Your task to perform on an android device: Search for vegetarian restaurants on Maps Image 0: 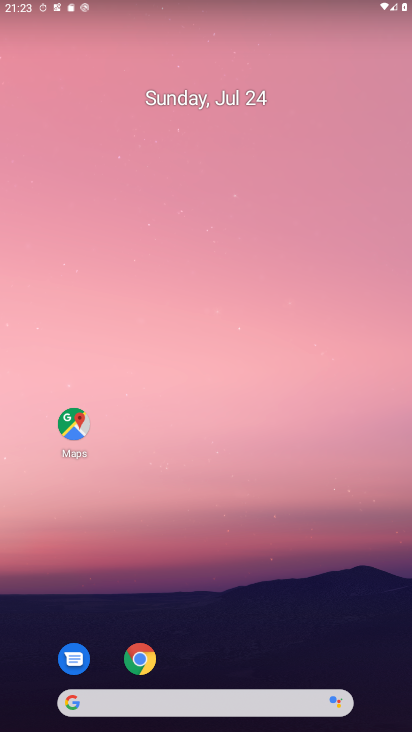
Step 0: drag from (215, 712) to (215, 83)
Your task to perform on an android device: Search for vegetarian restaurants on Maps Image 1: 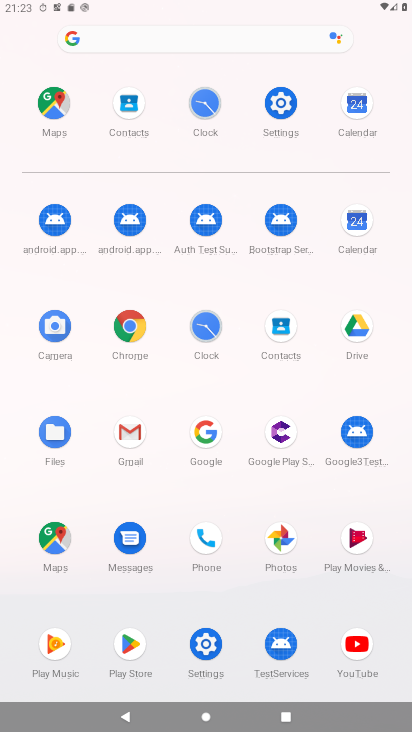
Step 1: click (55, 539)
Your task to perform on an android device: Search for vegetarian restaurants on Maps Image 2: 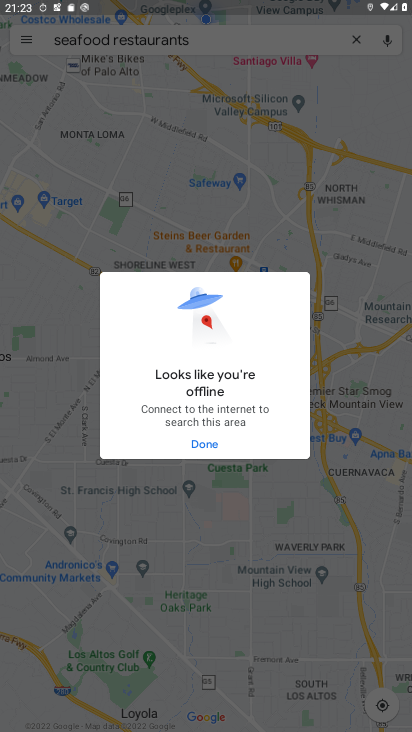
Step 2: click (202, 442)
Your task to perform on an android device: Search for vegetarian restaurants on Maps Image 3: 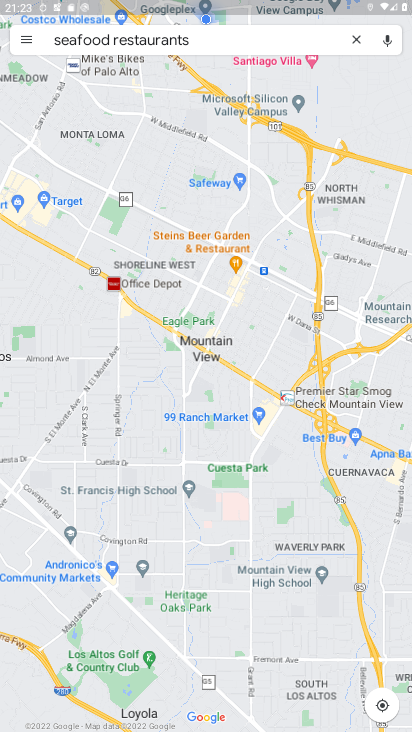
Step 3: click (353, 34)
Your task to perform on an android device: Search for vegetarian restaurants on Maps Image 4: 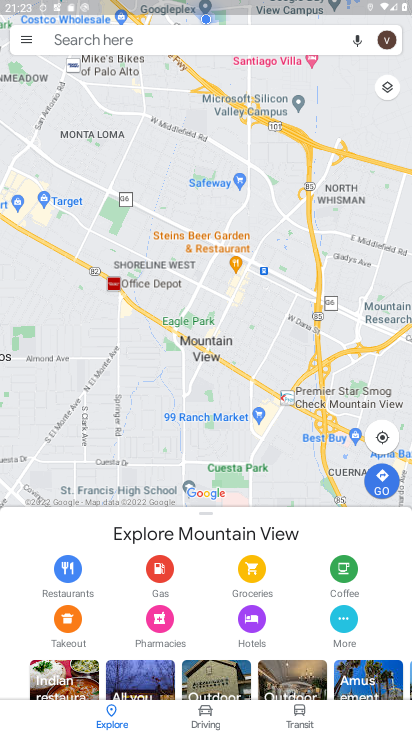
Step 4: click (214, 42)
Your task to perform on an android device: Search for vegetarian restaurants on Maps Image 5: 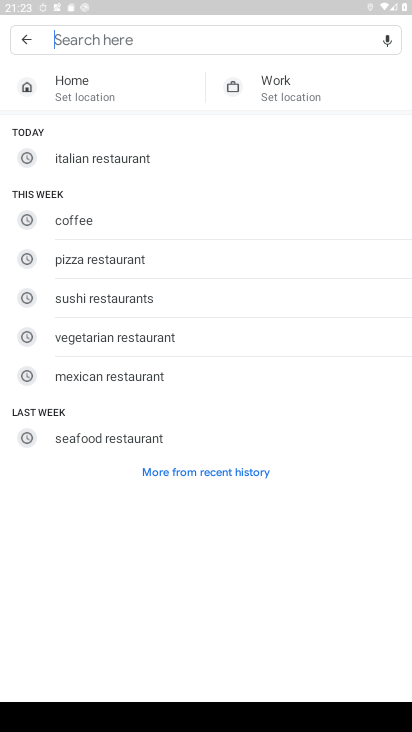
Step 5: type "vegettarian restaurants"
Your task to perform on an android device: Search for vegetarian restaurants on Maps Image 6: 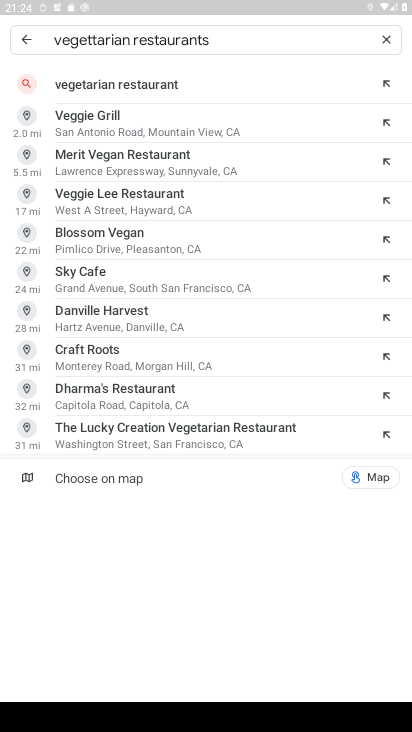
Step 6: click (139, 82)
Your task to perform on an android device: Search for vegetarian restaurants on Maps Image 7: 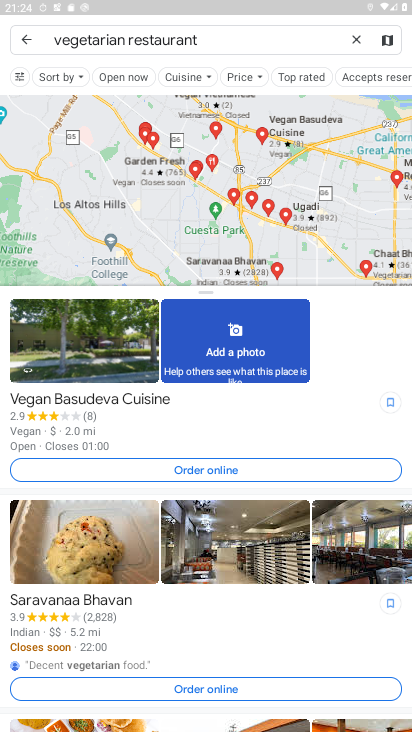
Step 7: task complete